Your task to perform on an android device: open app "Upside-Cash back on gas & food" (install if not already installed) Image 0: 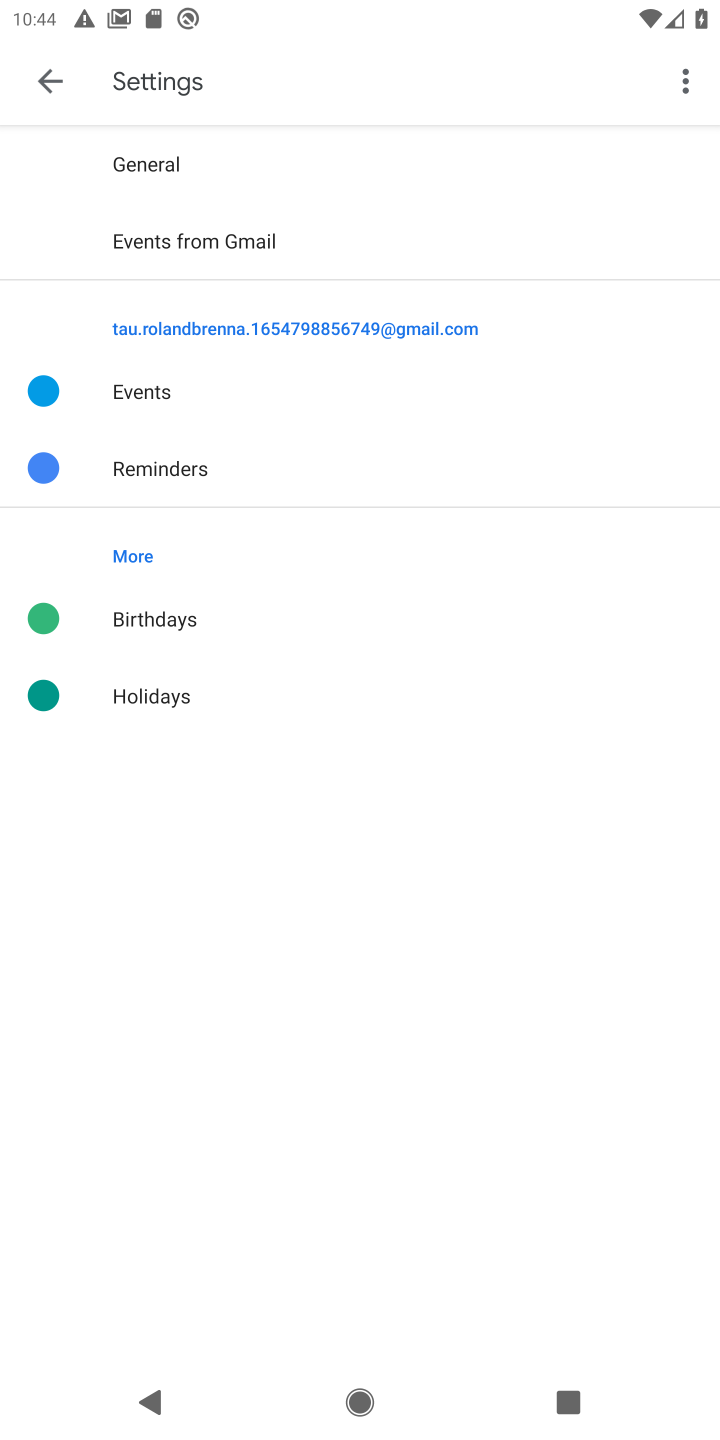
Step 0: press back button
Your task to perform on an android device: open app "Upside-Cash back on gas & food" (install if not already installed) Image 1: 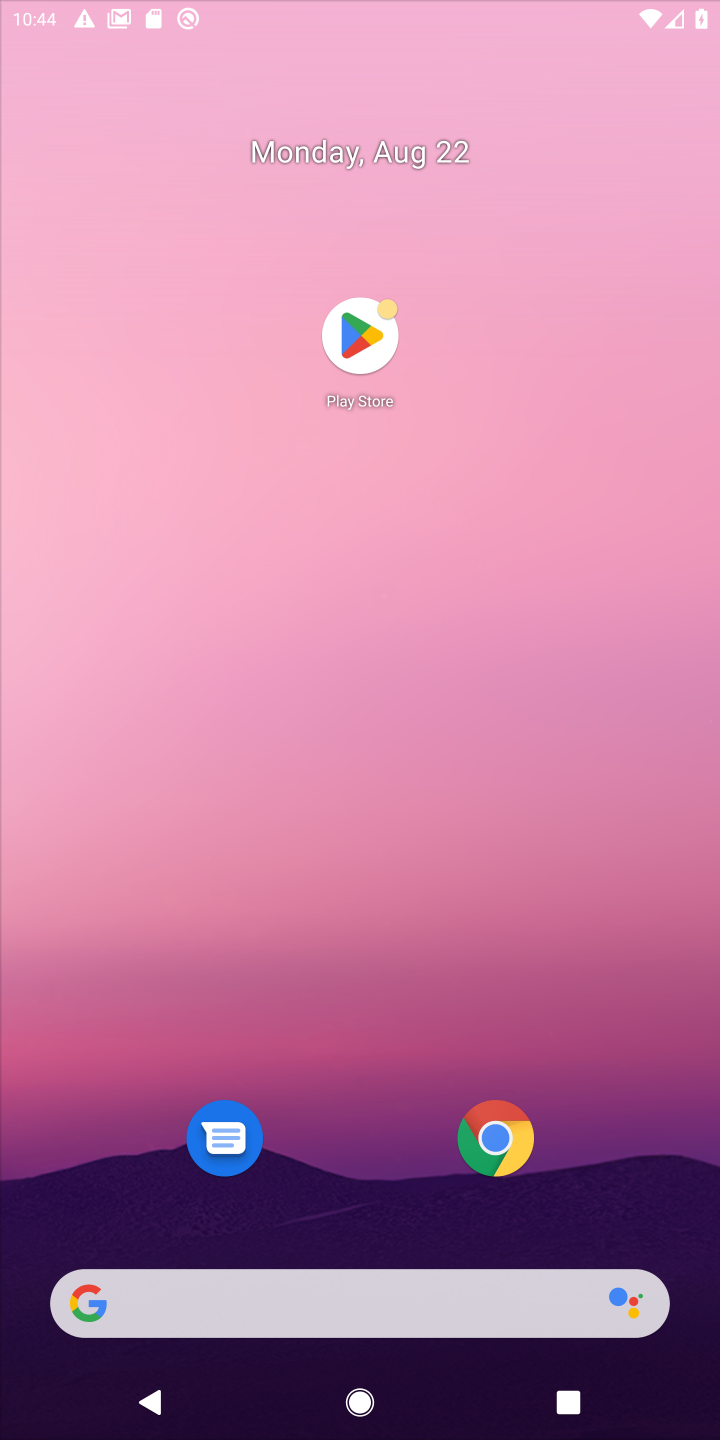
Step 1: press back button
Your task to perform on an android device: open app "Upside-Cash back on gas & food" (install if not already installed) Image 2: 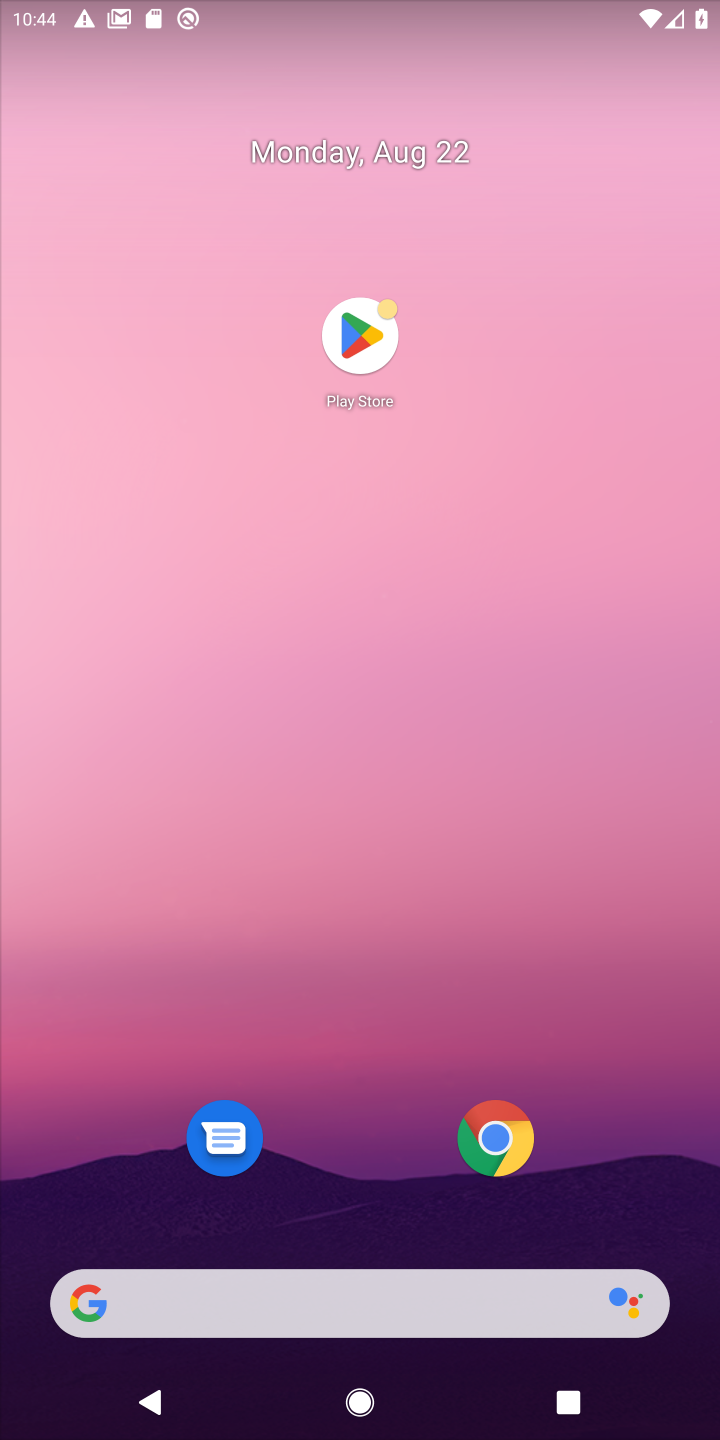
Step 2: click (358, 341)
Your task to perform on an android device: open app "Upside-Cash back on gas & food" (install if not already installed) Image 3: 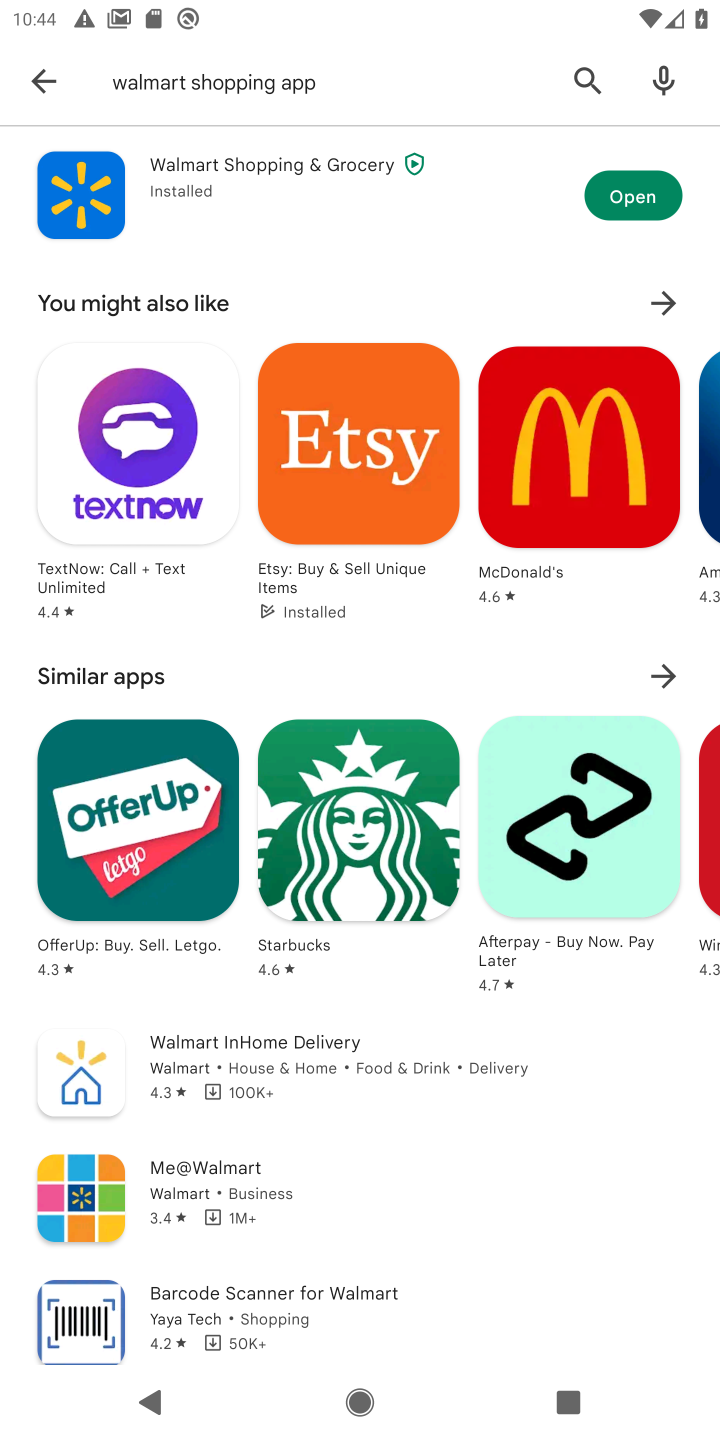
Step 3: click (586, 81)
Your task to perform on an android device: open app "Upside-Cash back on gas & food" (install if not already installed) Image 4: 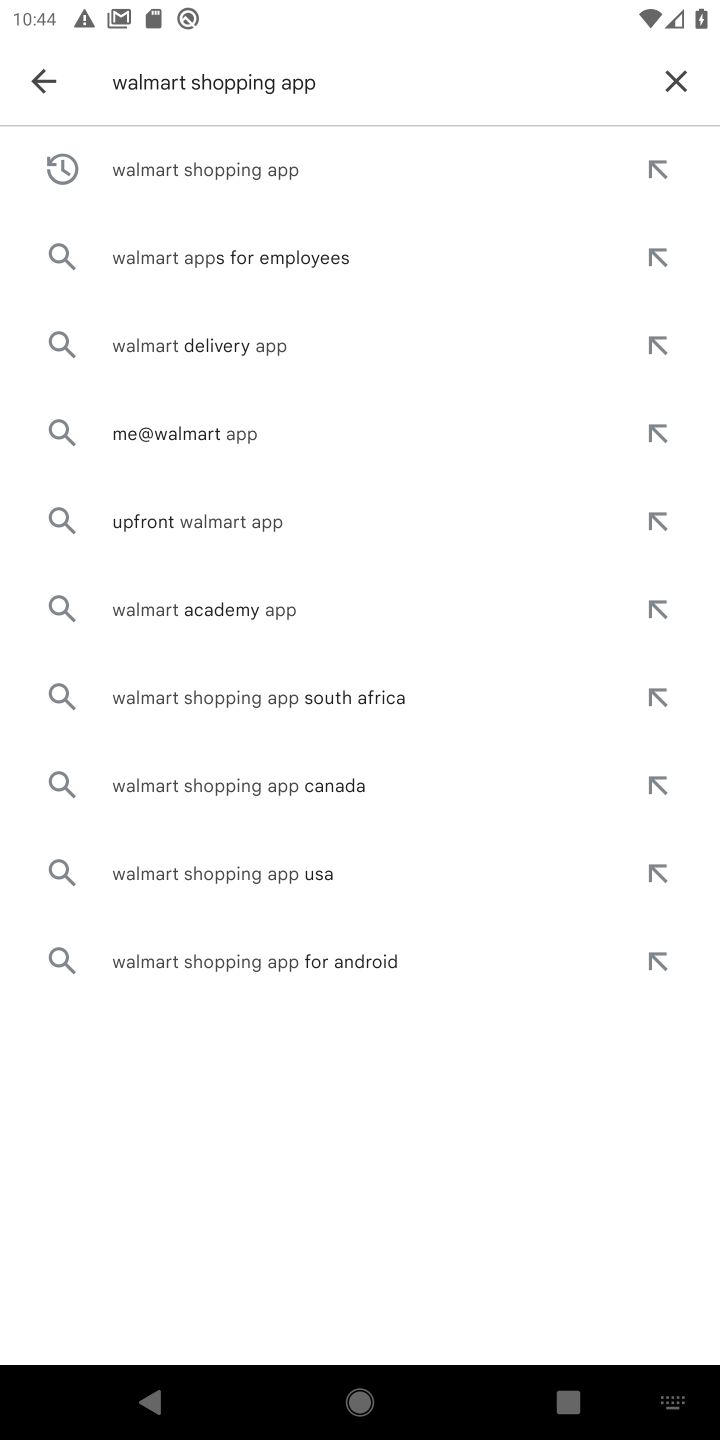
Step 4: click (666, 75)
Your task to perform on an android device: open app "Upside-Cash back on gas & food" (install if not already installed) Image 5: 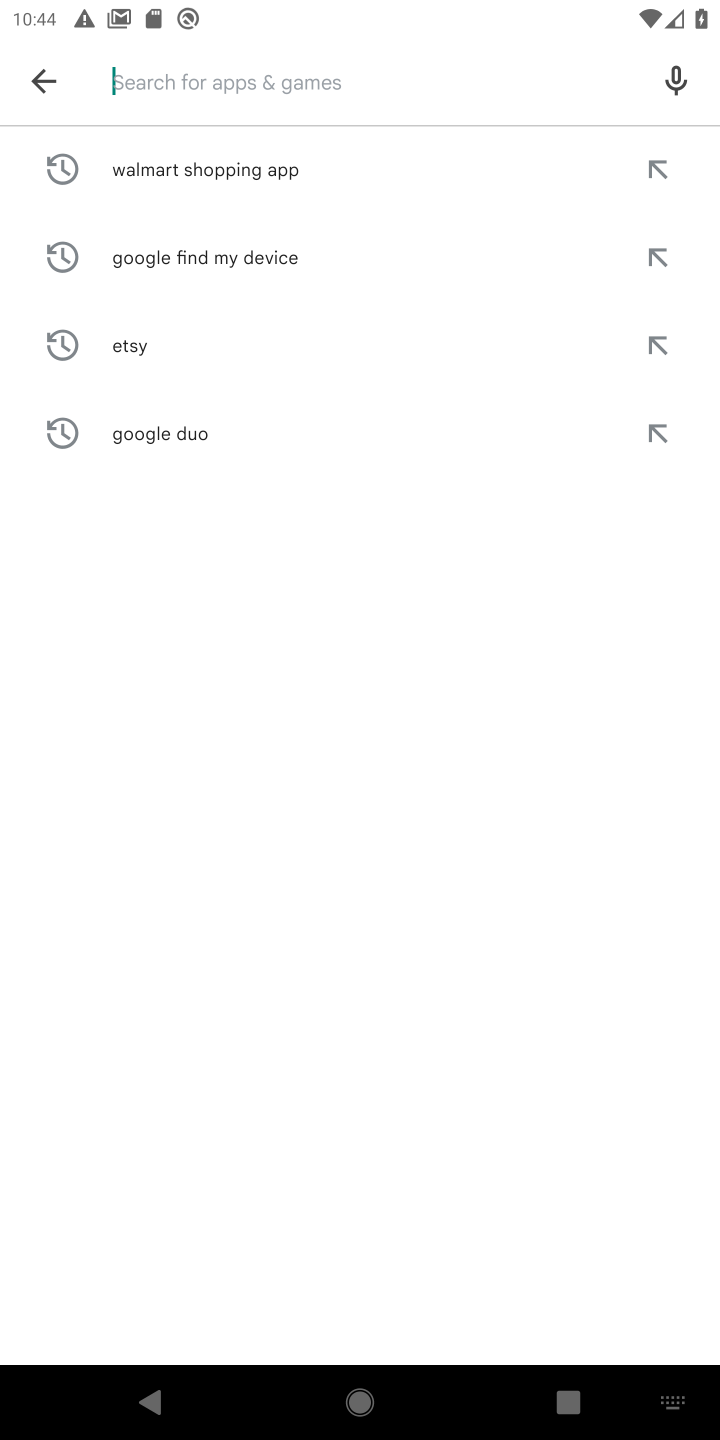
Step 5: type "upside cash"
Your task to perform on an android device: open app "Upside-Cash back on gas & food" (install if not already installed) Image 6: 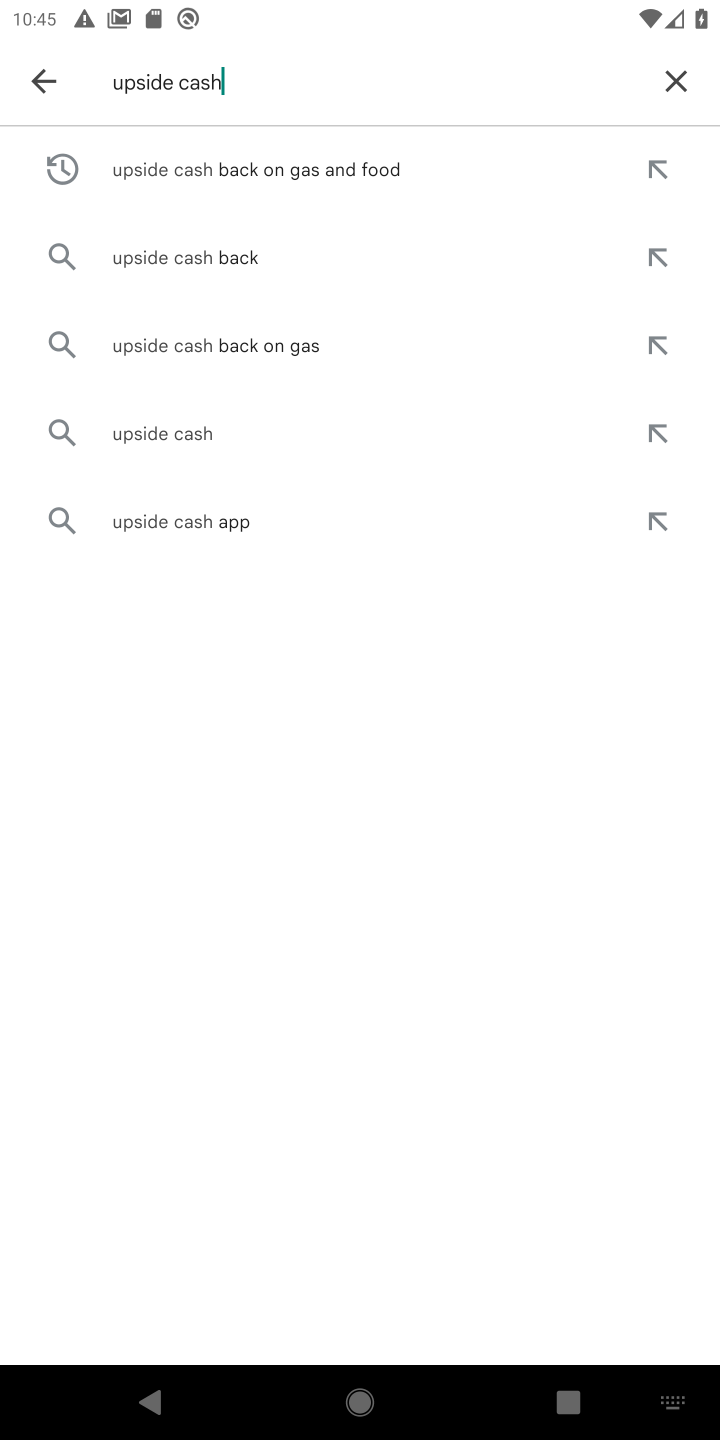
Step 6: click (315, 165)
Your task to perform on an android device: open app "Upside-Cash back on gas & food" (install if not already installed) Image 7: 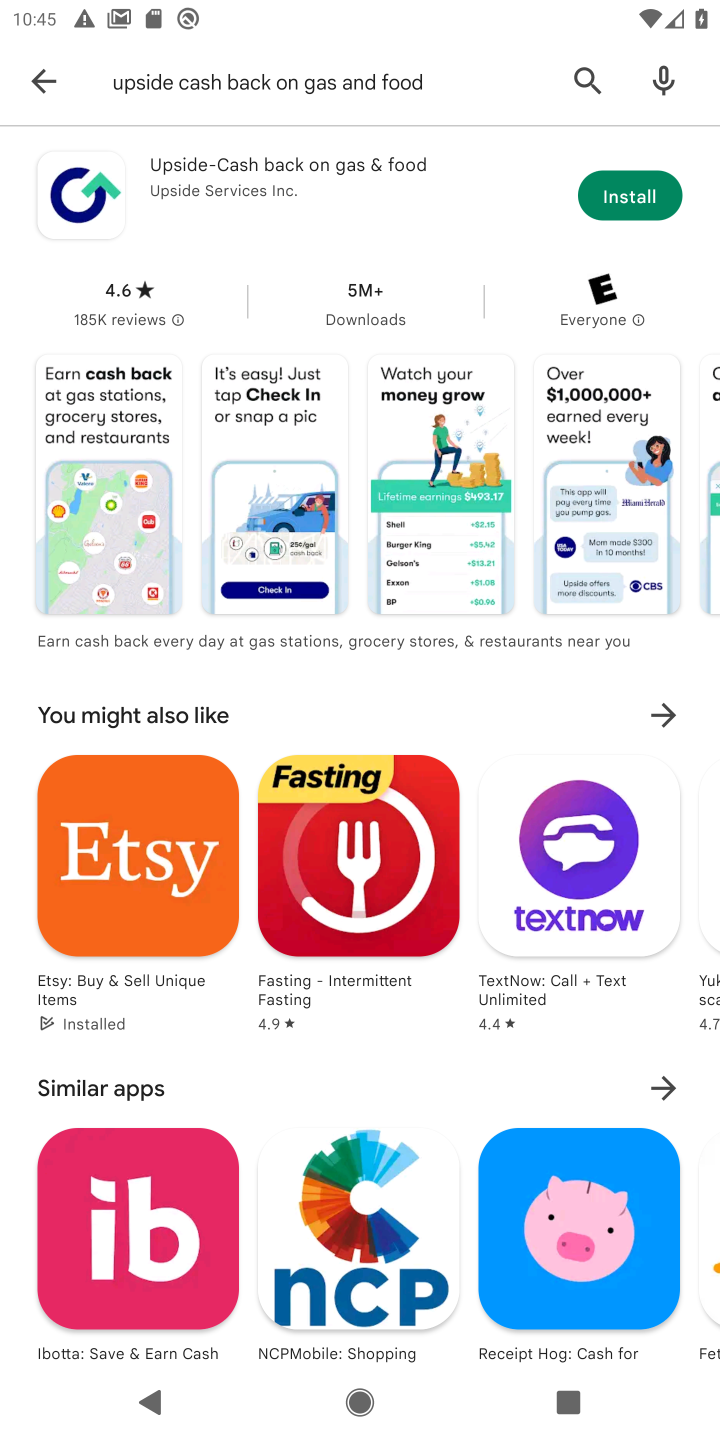
Step 7: click (612, 183)
Your task to perform on an android device: open app "Upside-Cash back on gas & food" (install if not already installed) Image 8: 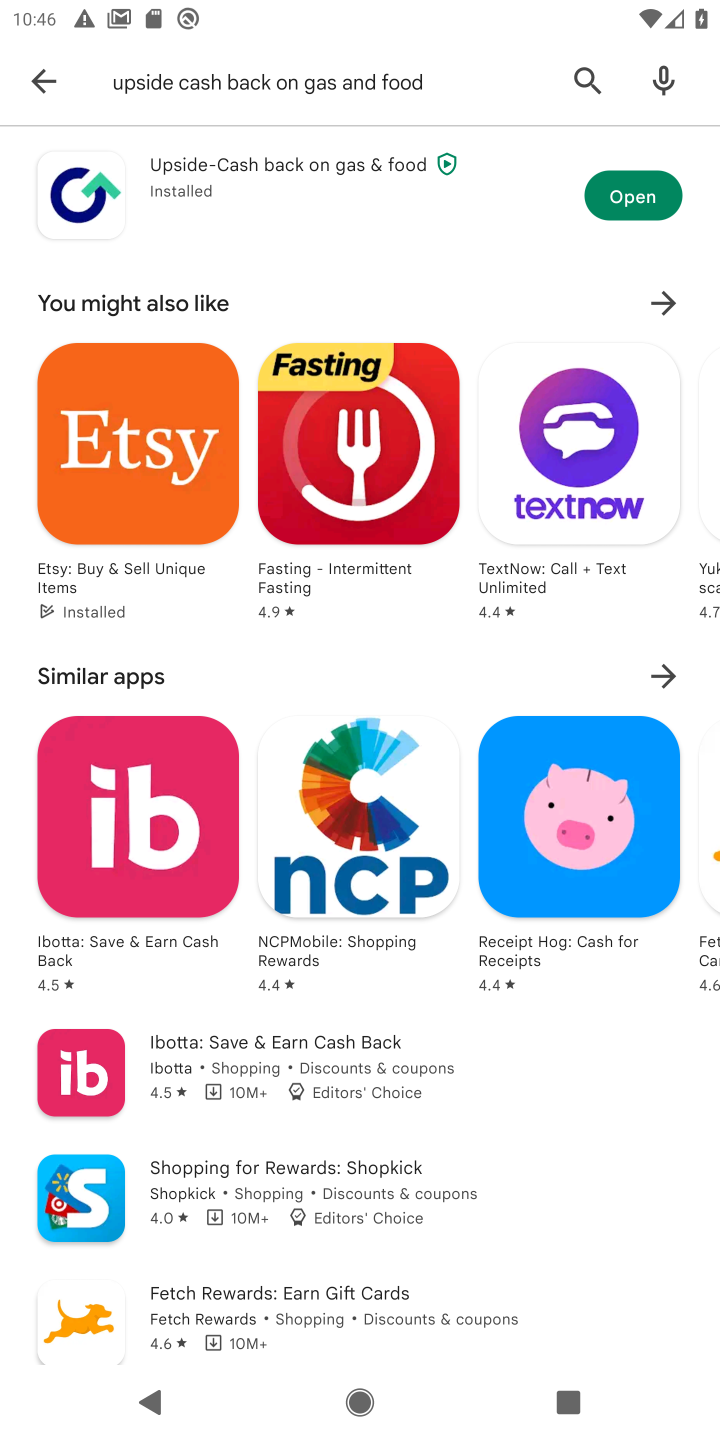
Step 8: click (646, 185)
Your task to perform on an android device: open app "Upside-Cash back on gas & food" (install if not already installed) Image 9: 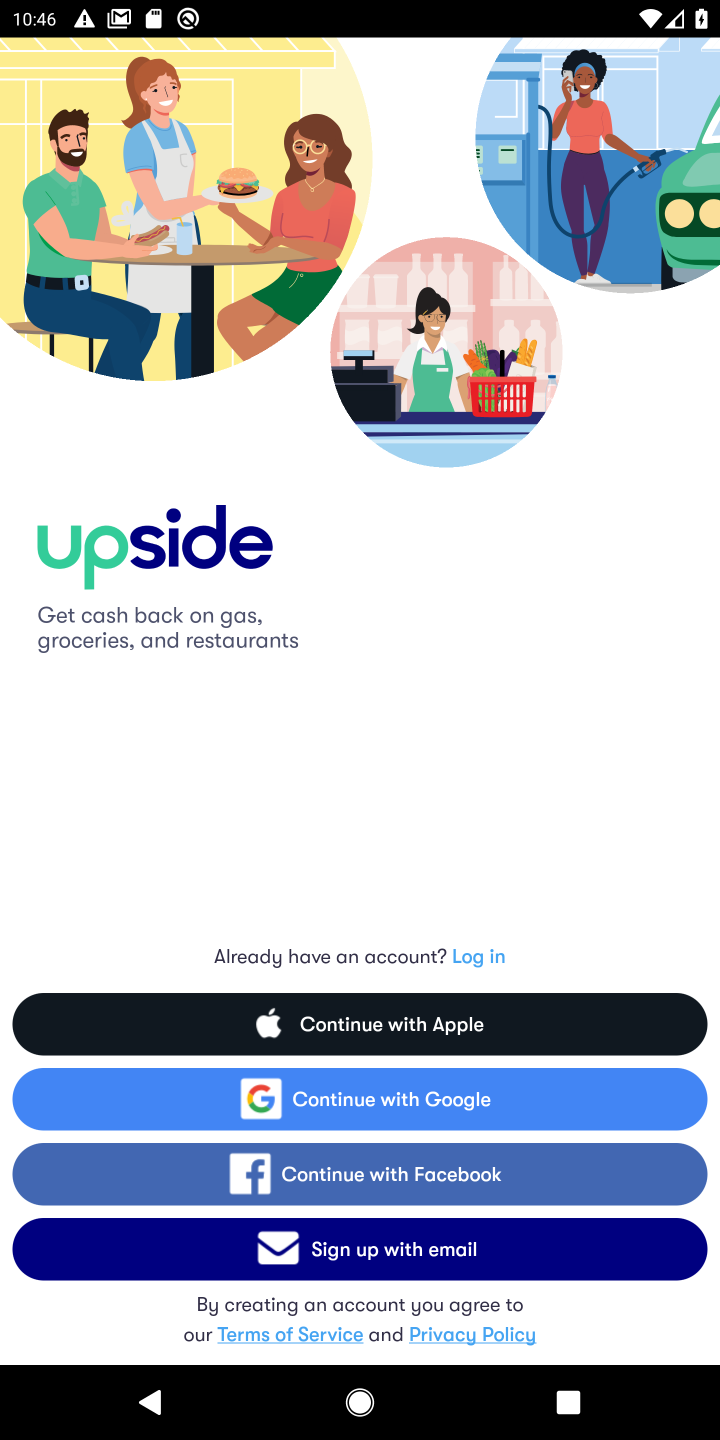
Step 9: task complete